Your task to perform on an android device: uninstall "Roku - Official Remote Control" Image 0: 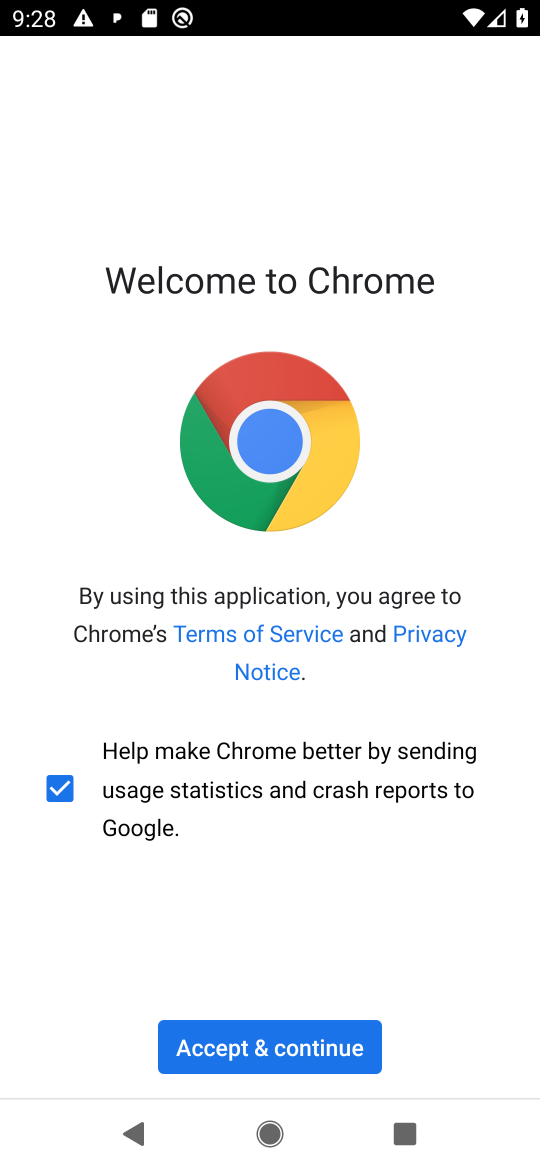
Step 0: press home button
Your task to perform on an android device: uninstall "Roku - Official Remote Control" Image 1: 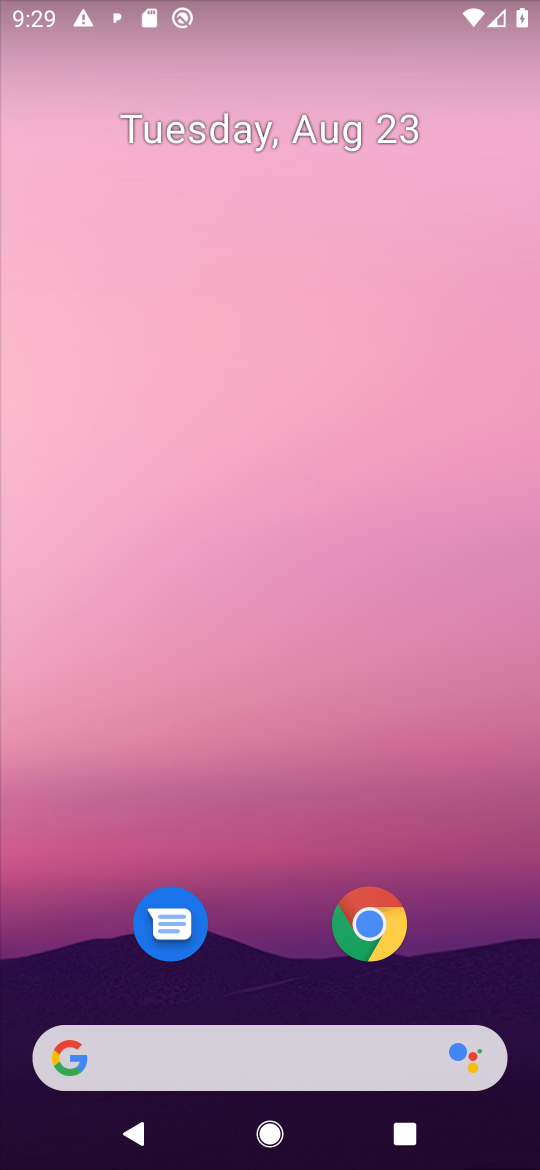
Step 1: drag from (451, 911) to (480, 112)
Your task to perform on an android device: uninstall "Roku - Official Remote Control" Image 2: 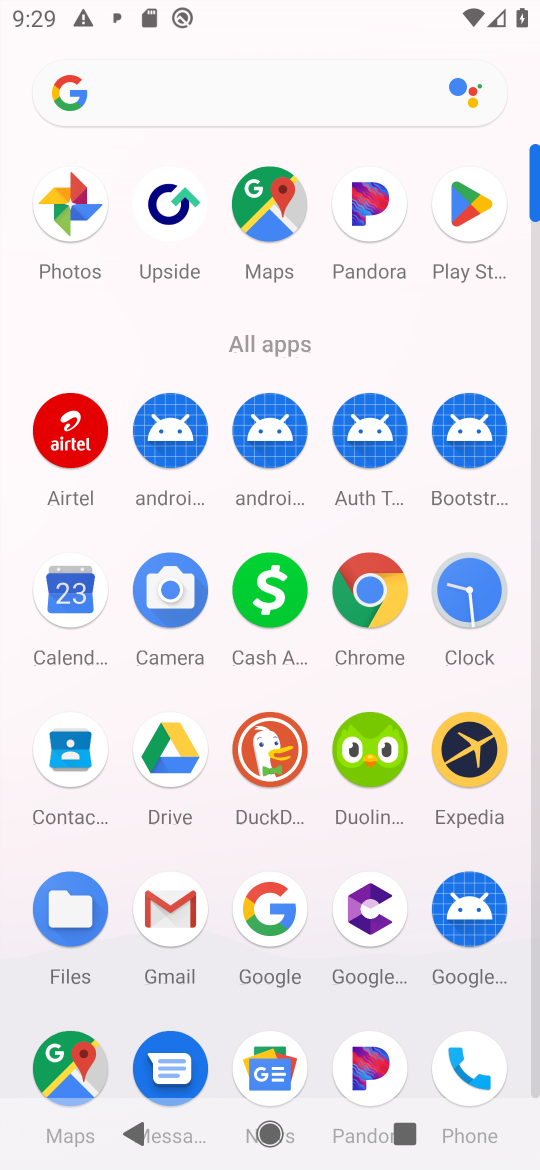
Step 2: click (468, 210)
Your task to perform on an android device: uninstall "Roku - Official Remote Control" Image 3: 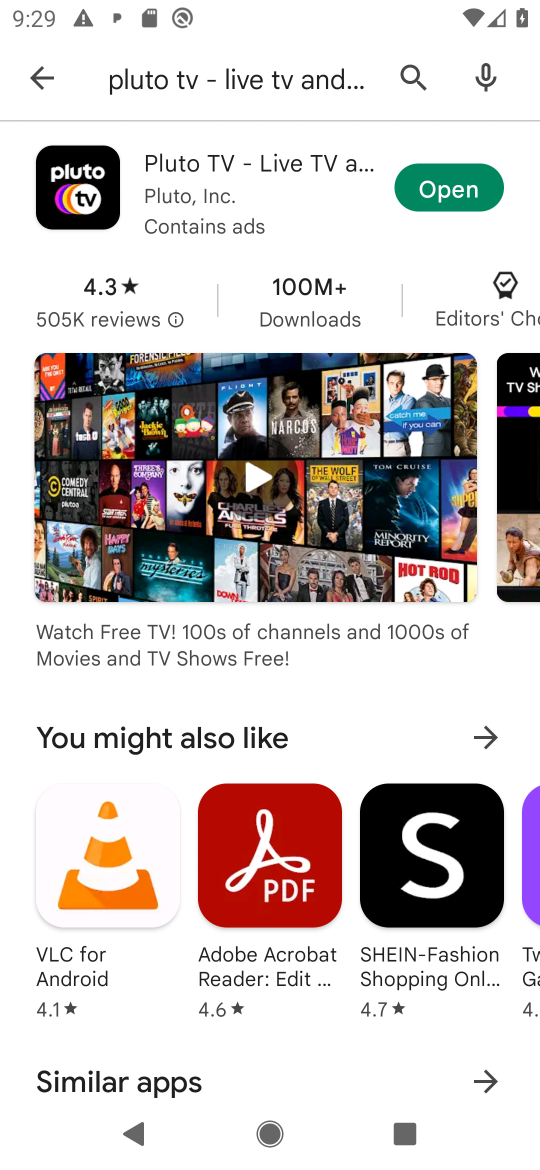
Step 3: press back button
Your task to perform on an android device: uninstall "Roku - Official Remote Control" Image 4: 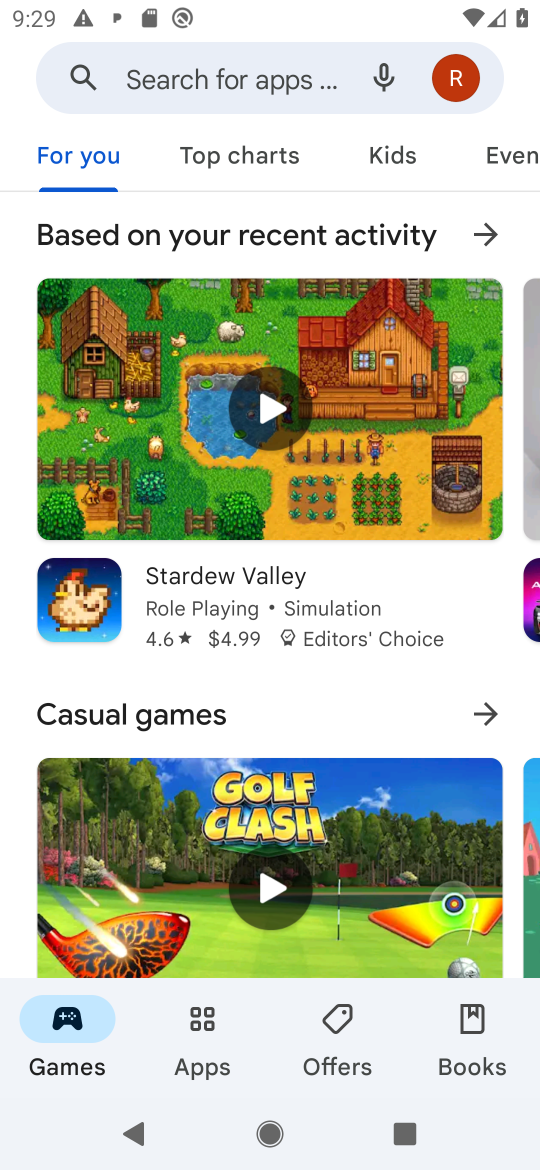
Step 4: click (232, 80)
Your task to perform on an android device: uninstall "Roku - Official Remote Control" Image 5: 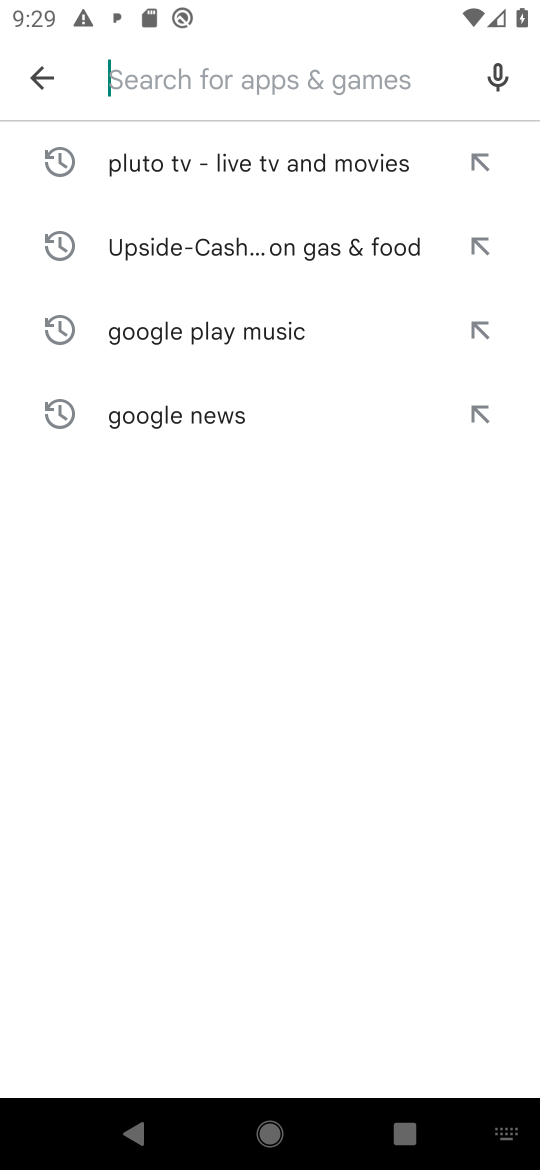
Step 5: type "Roku - Official Remote Control"
Your task to perform on an android device: uninstall "Roku - Official Remote Control" Image 6: 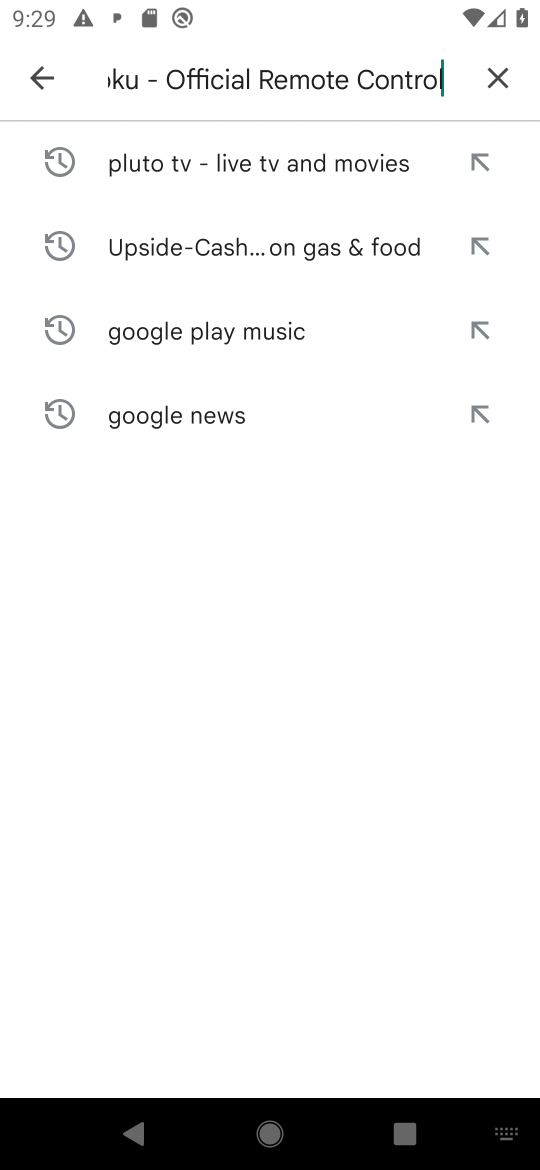
Step 6: press enter
Your task to perform on an android device: uninstall "Roku - Official Remote Control" Image 7: 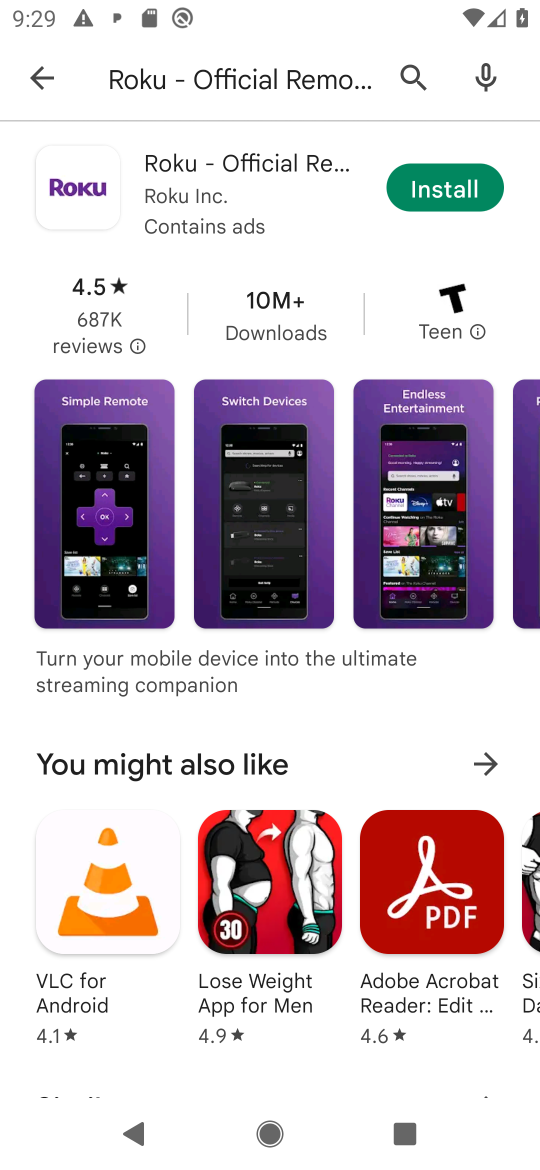
Step 7: task complete